Your task to perform on an android device: Go to Amazon Image 0: 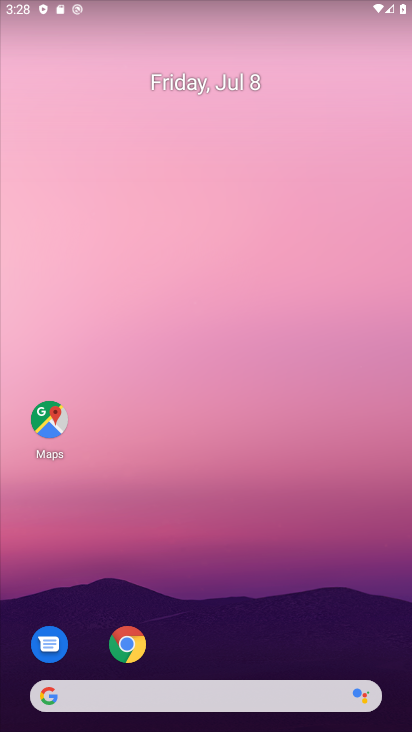
Step 0: click (132, 641)
Your task to perform on an android device: Go to Amazon Image 1: 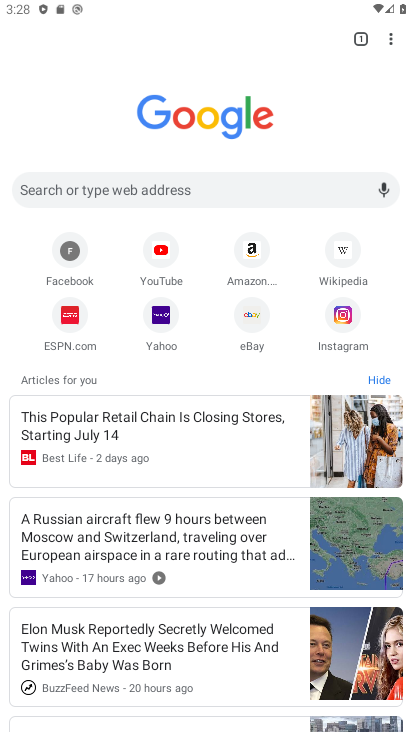
Step 1: click (243, 240)
Your task to perform on an android device: Go to Amazon Image 2: 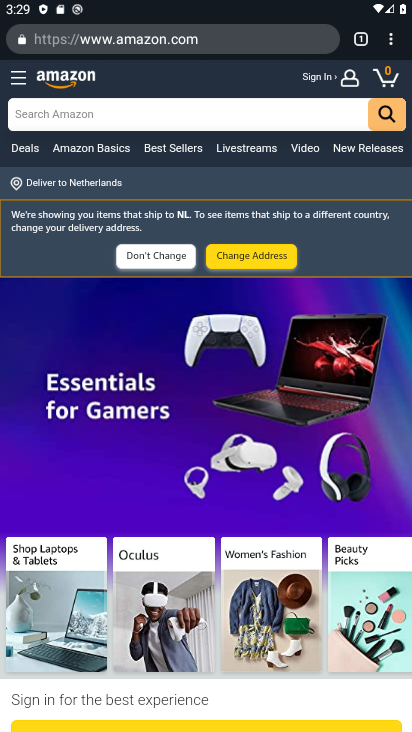
Step 2: task complete